Your task to perform on an android device: Open maps Image 0: 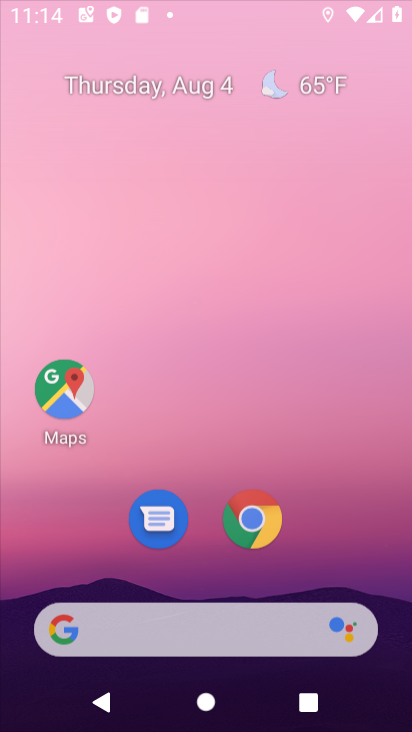
Step 0: click (162, 632)
Your task to perform on an android device: Open maps Image 1: 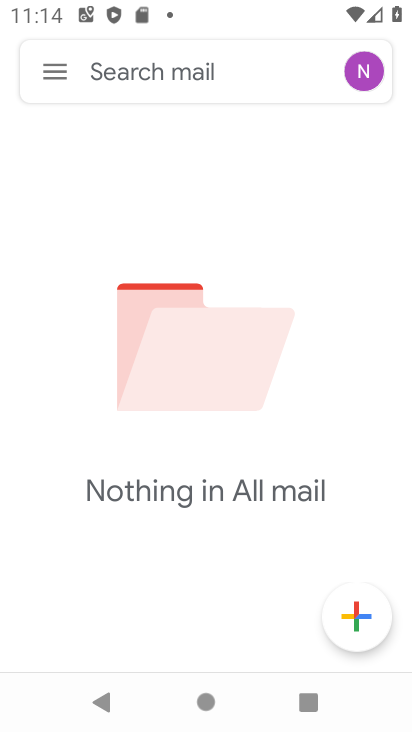
Step 1: press home button
Your task to perform on an android device: Open maps Image 2: 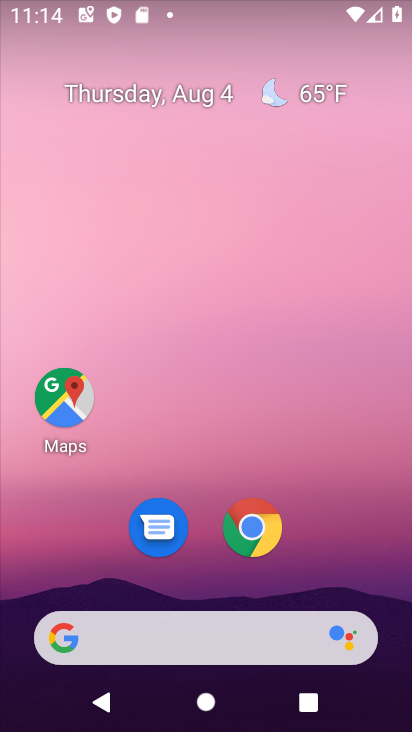
Step 2: click (79, 401)
Your task to perform on an android device: Open maps Image 3: 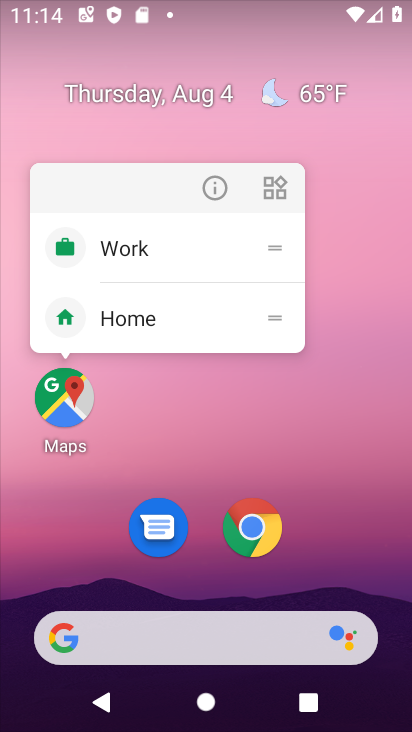
Step 3: click (79, 401)
Your task to perform on an android device: Open maps Image 4: 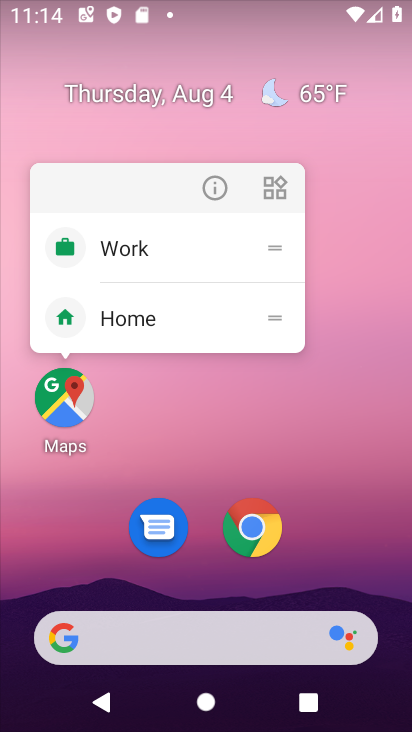
Step 4: click (70, 408)
Your task to perform on an android device: Open maps Image 5: 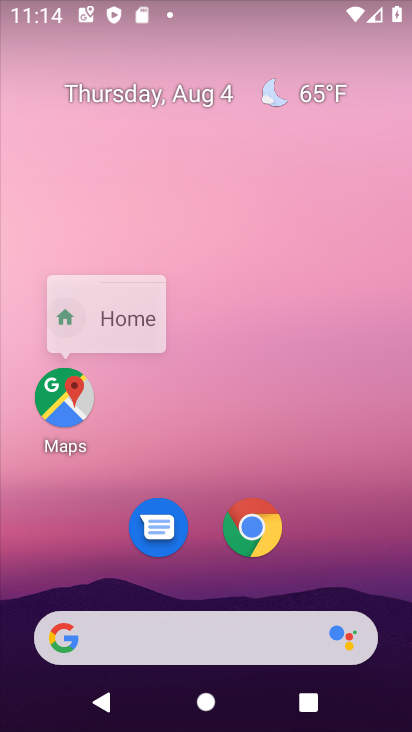
Step 5: click (70, 408)
Your task to perform on an android device: Open maps Image 6: 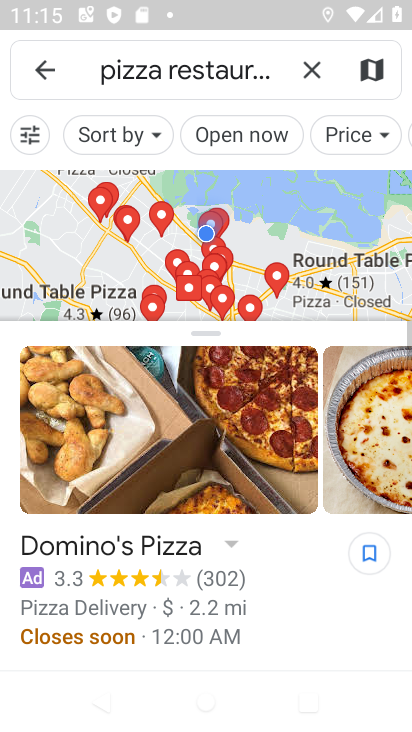
Step 6: task complete